Your task to perform on an android device: Open the phone app and click the voicemail tab. Image 0: 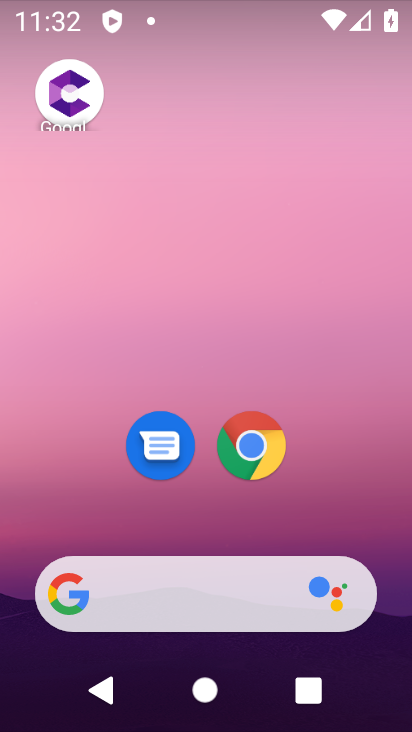
Step 0: drag from (94, 554) to (248, 18)
Your task to perform on an android device: Open the phone app and click the voicemail tab. Image 1: 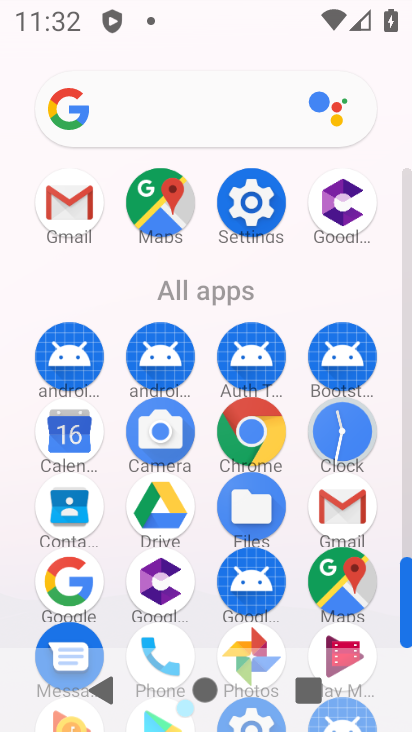
Step 1: click (172, 651)
Your task to perform on an android device: Open the phone app and click the voicemail tab. Image 2: 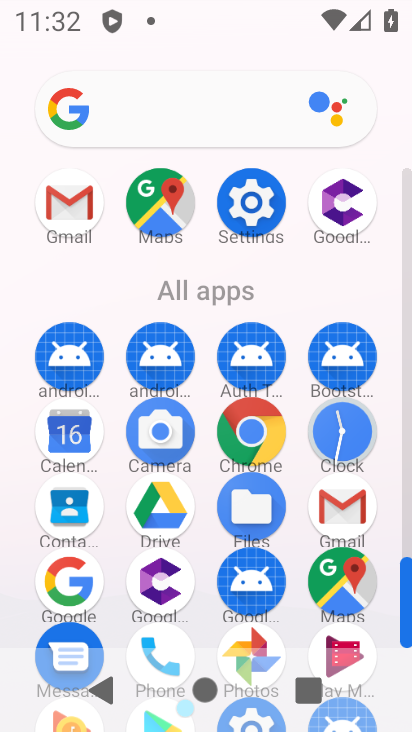
Step 2: click (171, 641)
Your task to perform on an android device: Open the phone app and click the voicemail tab. Image 3: 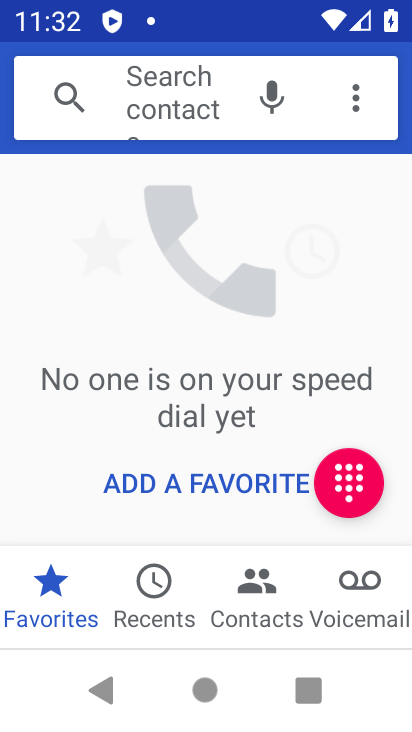
Step 3: click (374, 602)
Your task to perform on an android device: Open the phone app and click the voicemail tab. Image 4: 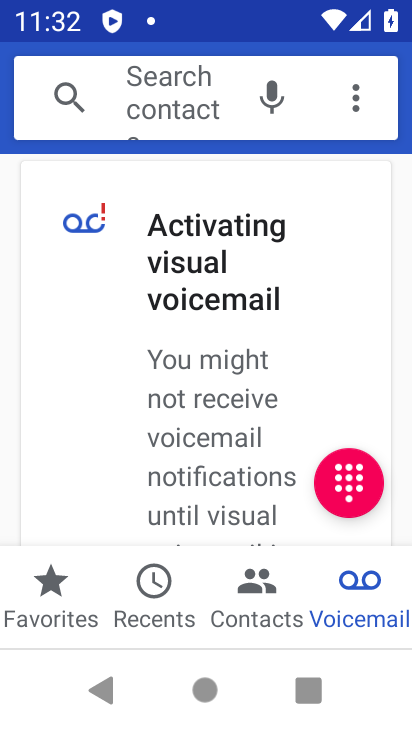
Step 4: task complete